Your task to perform on an android device: When is my next meeting? Image 0: 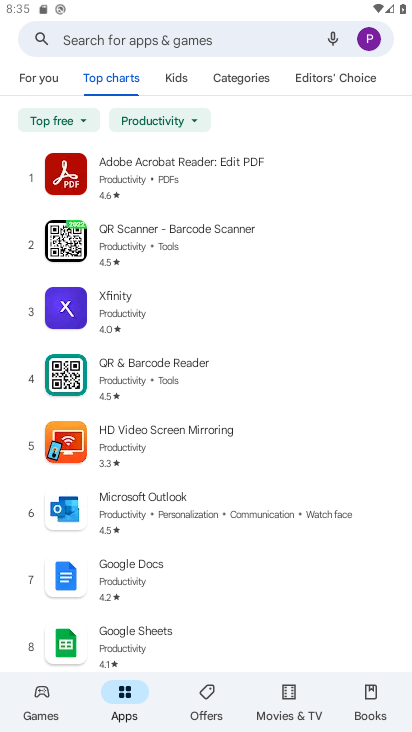
Step 0: press home button
Your task to perform on an android device: When is my next meeting? Image 1: 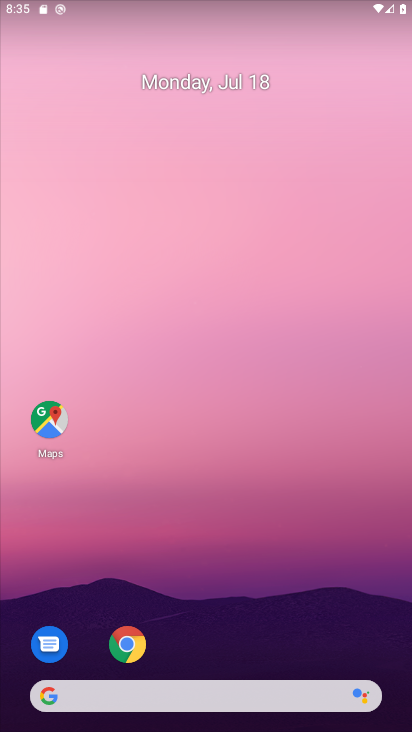
Step 1: drag from (263, 645) to (286, 106)
Your task to perform on an android device: When is my next meeting? Image 2: 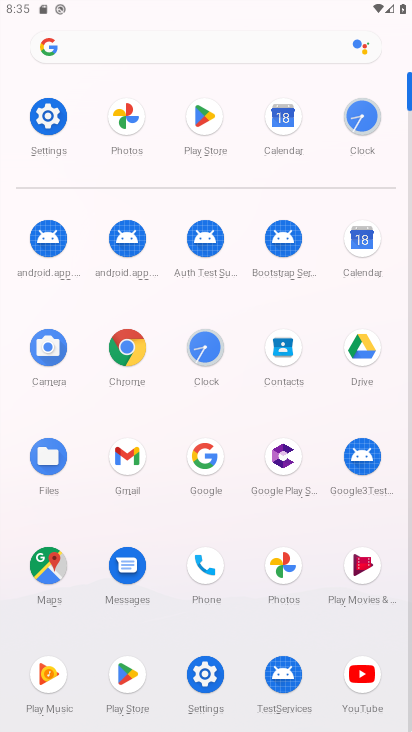
Step 2: click (197, 701)
Your task to perform on an android device: When is my next meeting? Image 3: 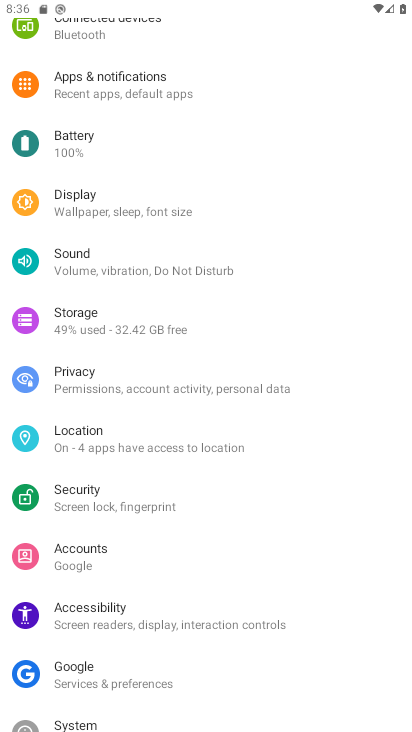
Step 3: press home button
Your task to perform on an android device: When is my next meeting? Image 4: 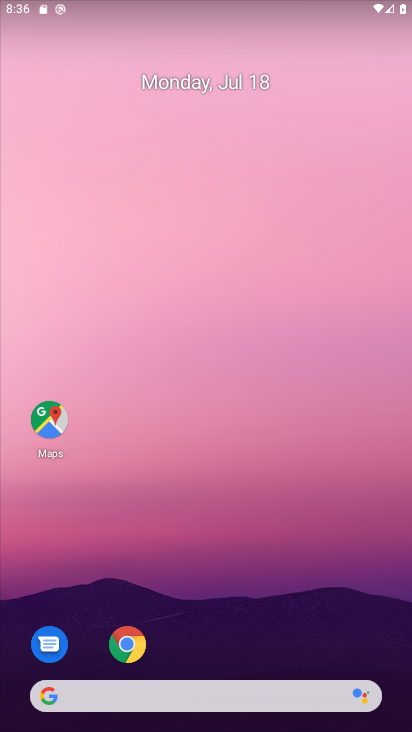
Step 4: drag from (196, 648) to (197, 239)
Your task to perform on an android device: When is my next meeting? Image 5: 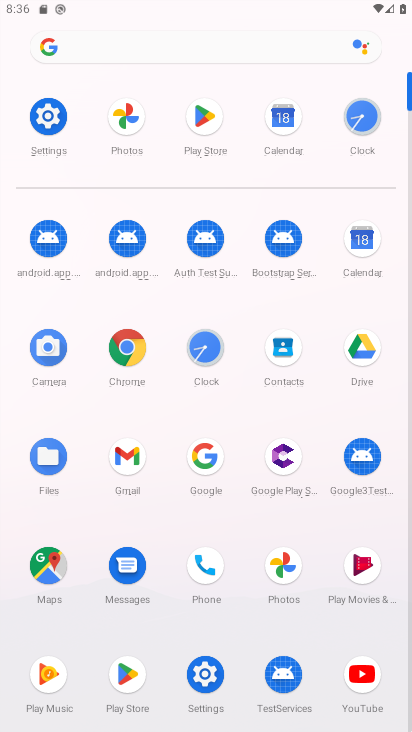
Step 5: click (295, 146)
Your task to perform on an android device: When is my next meeting? Image 6: 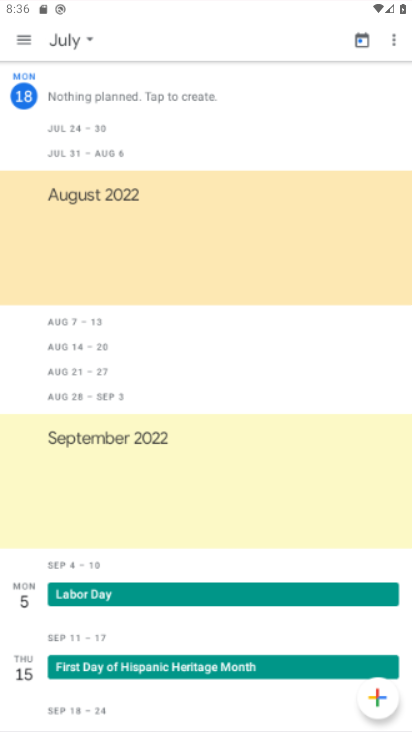
Step 6: task complete